Your task to perform on an android device: turn pop-ups on in chrome Image 0: 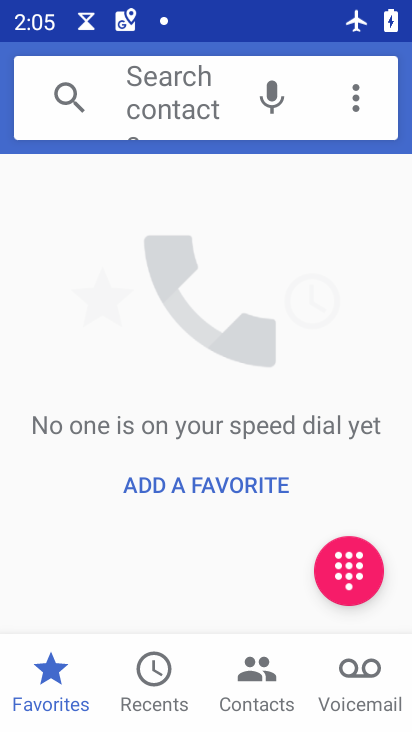
Step 0: click (271, 509)
Your task to perform on an android device: turn pop-ups on in chrome Image 1: 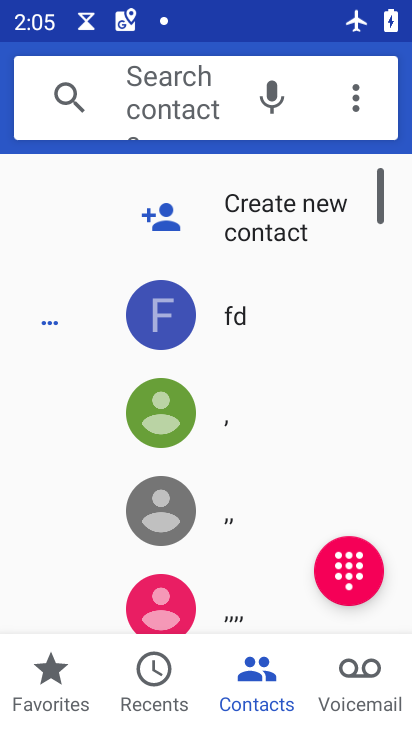
Step 1: press home button
Your task to perform on an android device: turn pop-ups on in chrome Image 2: 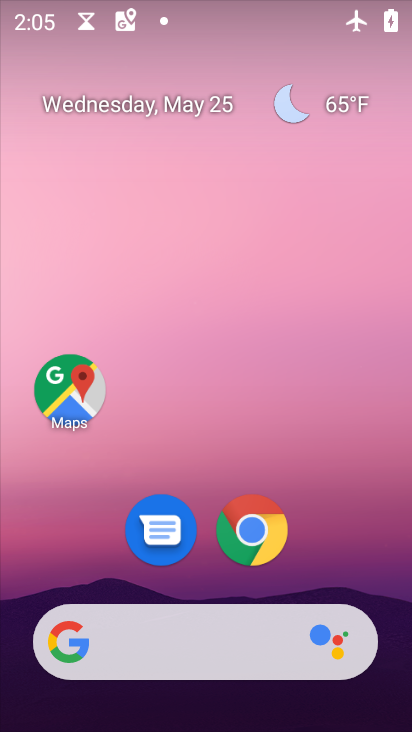
Step 2: click (235, 521)
Your task to perform on an android device: turn pop-ups on in chrome Image 3: 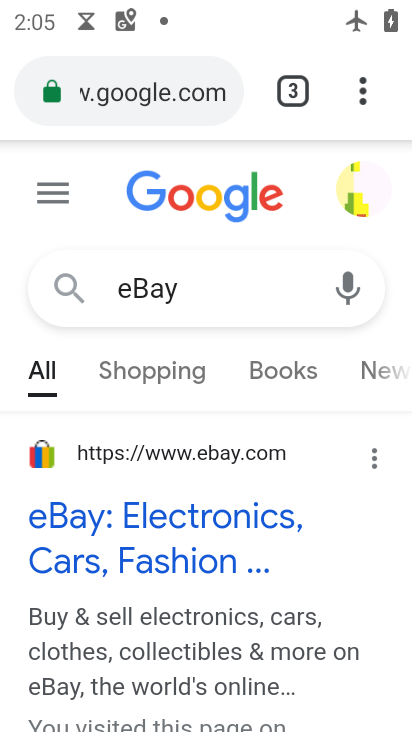
Step 3: click (355, 92)
Your task to perform on an android device: turn pop-ups on in chrome Image 4: 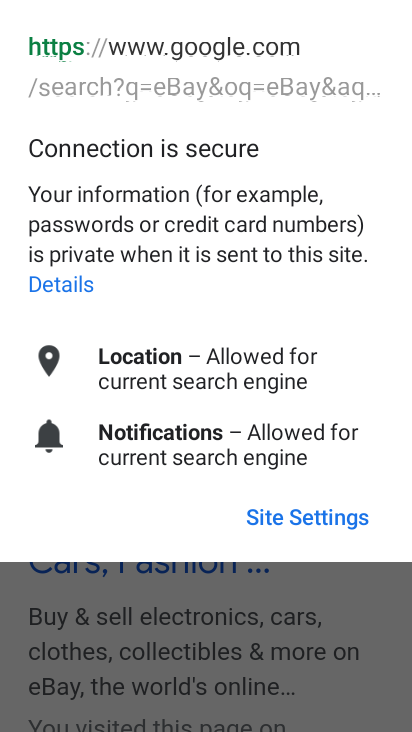
Step 4: press back button
Your task to perform on an android device: turn pop-ups on in chrome Image 5: 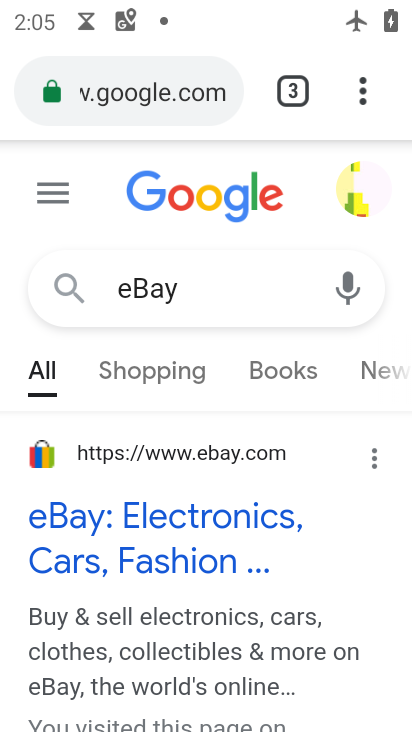
Step 5: click (359, 79)
Your task to perform on an android device: turn pop-ups on in chrome Image 6: 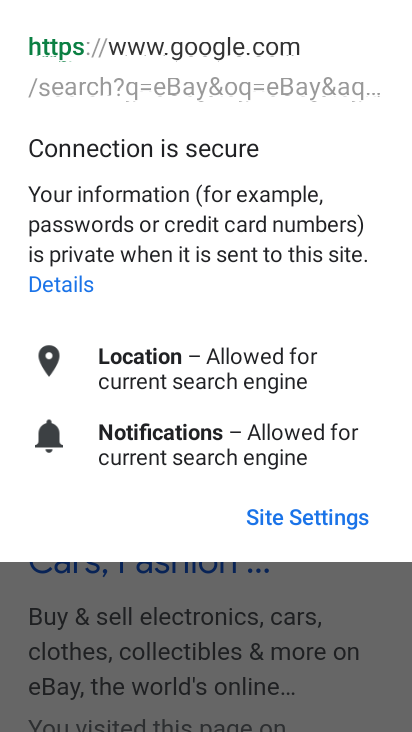
Step 6: press back button
Your task to perform on an android device: turn pop-ups on in chrome Image 7: 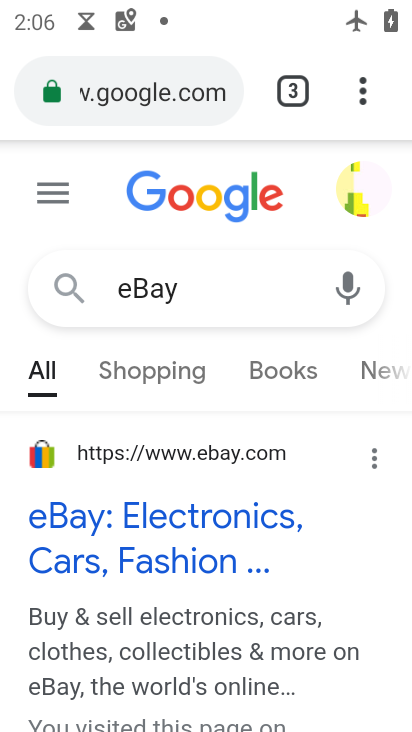
Step 7: click (359, 108)
Your task to perform on an android device: turn pop-ups on in chrome Image 8: 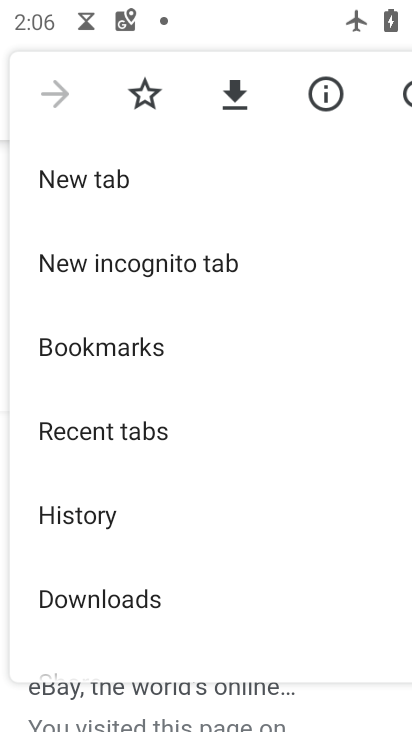
Step 8: drag from (240, 434) to (280, 146)
Your task to perform on an android device: turn pop-ups on in chrome Image 9: 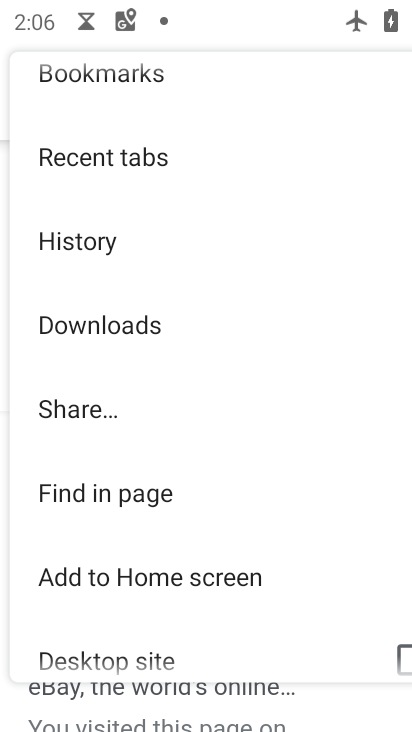
Step 9: drag from (199, 545) to (203, 72)
Your task to perform on an android device: turn pop-ups on in chrome Image 10: 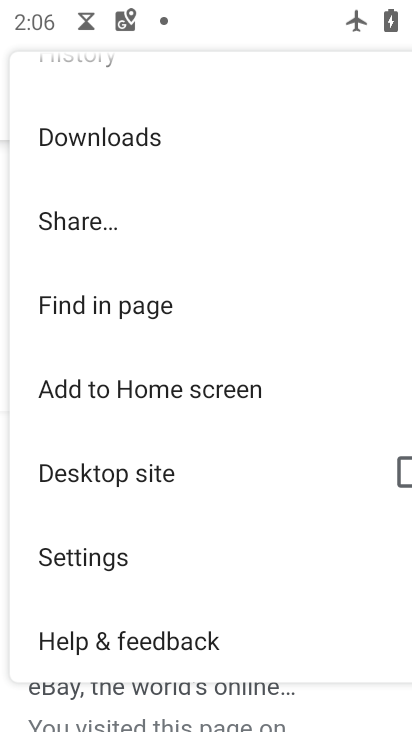
Step 10: click (84, 555)
Your task to perform on an android device: turn pop-ups on in chrome Image 11: 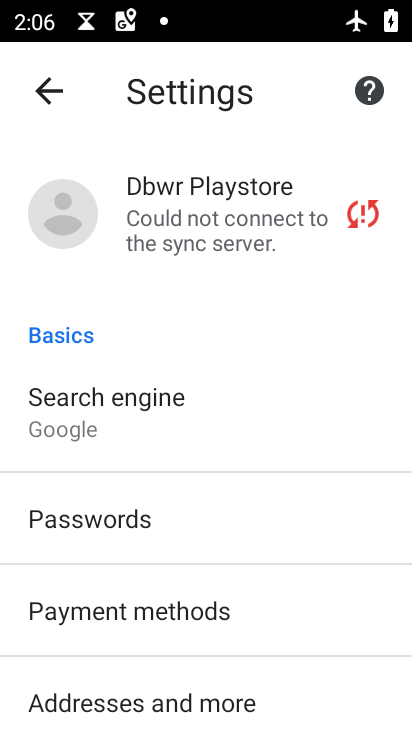
Step 11: drag from (216, 593) to (269, 63)
Your task to perform on an android device: turn pop-ups on in chrome Image 12: 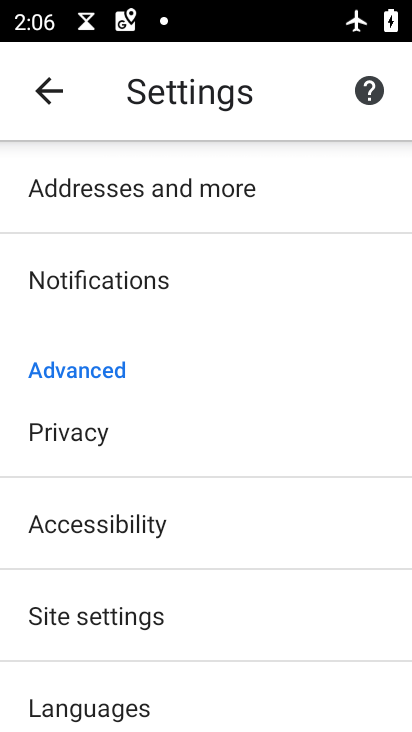
Step 12: drag from (249, 592) to (245, 200)
Your task to perform on an android device: turn pop-ups on in chrome Image 13: 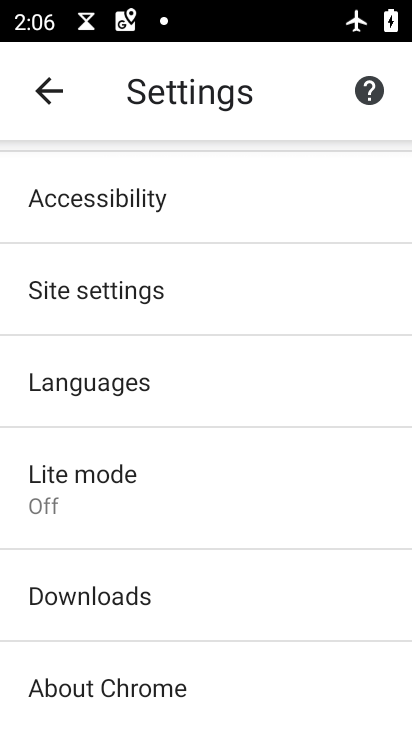
Step 13: click (129, 277)
Your task to perform on an android device: turn pop-ups on in chrome Image 14: 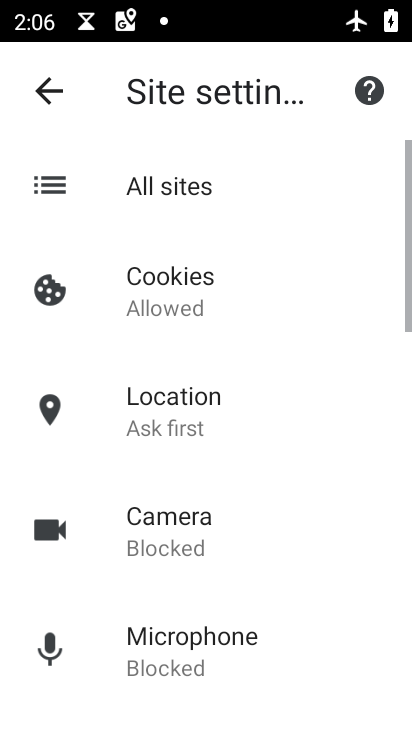
Step 14: drag from (246, 512) to (241, 109)
Your task to perform on an android device: turn pop-ups on in chrome Image 15: 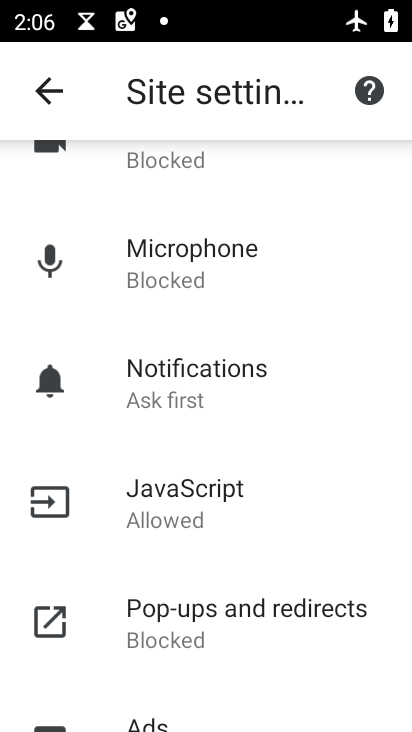
Step 15: click (202, 613)
Your task to perform on an android device: turn pop-ups on in chrome Image 16: 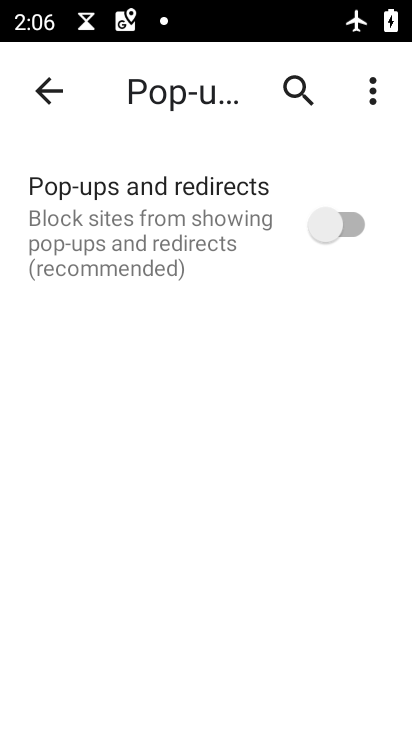
Step 16: click (344, 216)
Your task to perform on an android device: turn pop-ups on in chrome Image 17: 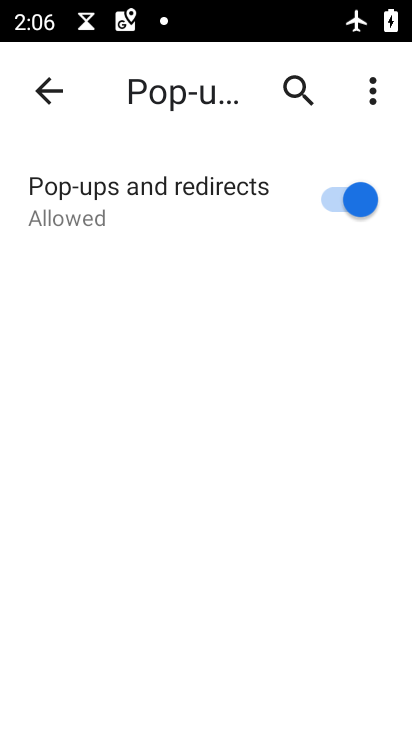
Step 17: task complete